Your task to perform on an android device: Open settings on Google Maps Image 0: 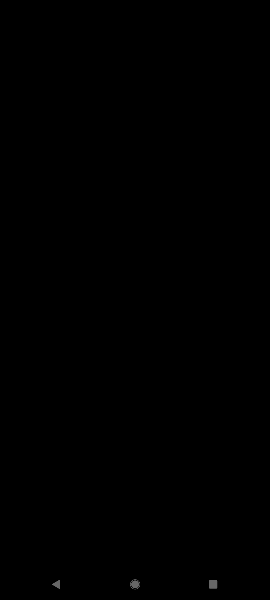
Step 0: drag from (124, 509) to (154, 225)
Your task to perform on an android device: Open settings on Google Maps Image 1: 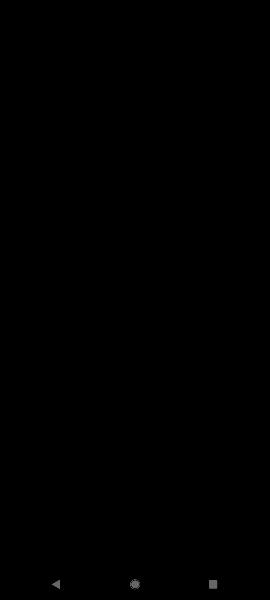
Step 1: press home button
Your task to perform on an android device: Open settings on Google Maps Image 2: 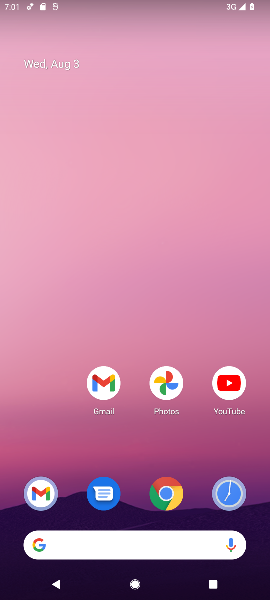
Step 2: drag from (139, 514) to (179, 153)
Your task to perform on an android device: Open settings on Google Maps Image 3: 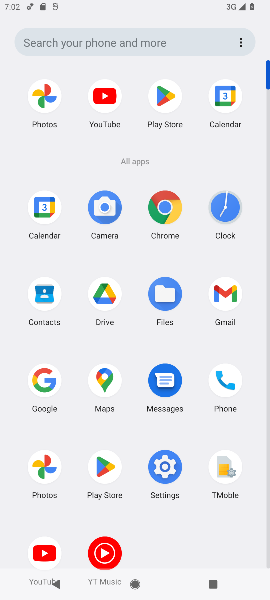
Step 3: drag from (137, 568) to (221, 571)
Your task to perform on an android device: Open settings on Google Maps Image 4: 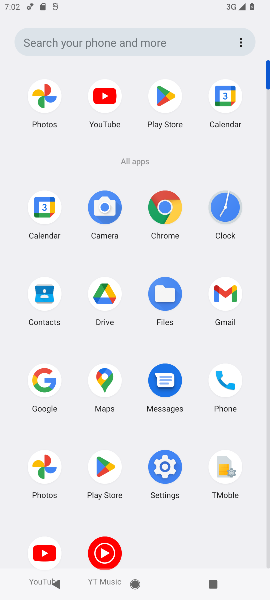
Step 4: click (104, 387)
Your task to perform on an android device: Open settings on Google Maps Image 5: 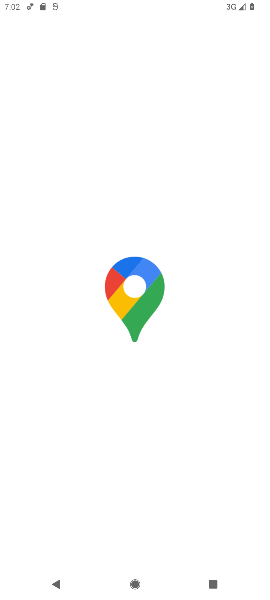
Step 5: task complete